Your task to perform on an android device: add a label to a message in the gmail app Image 0: 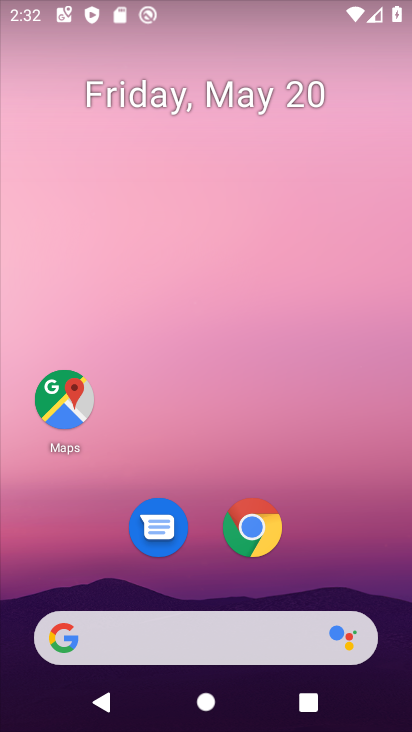
Step 0: drag from (243, 561) to (275, 7)
Your task to perform on an android device: add a label to a message in the gmail app Image 1: 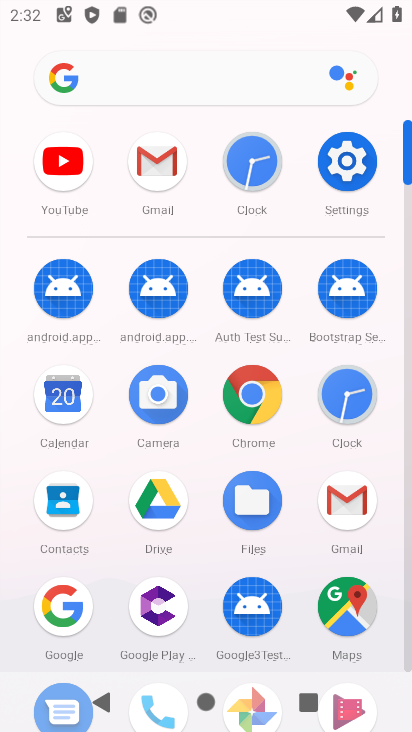
Step 1: click (149, 175)
Your task to perform on an android device: add a label to a message in the gmail app Image 2: 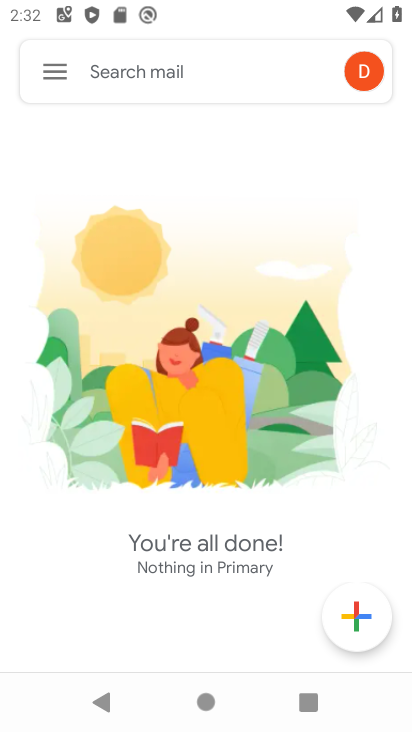
Step 2: task complete